Your task to perform on an android device: Go to Android settings Image 0: 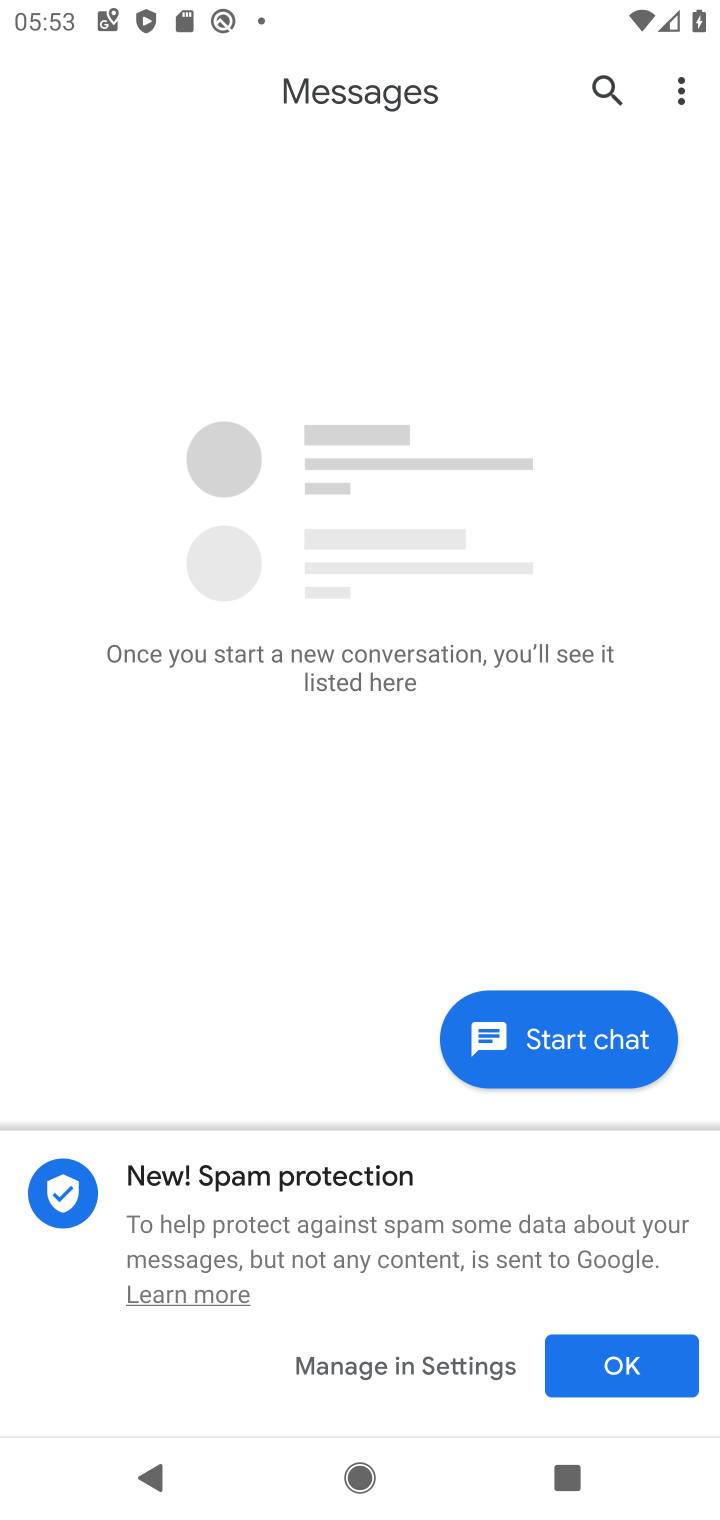
Step 0: press home button
Your task to perform on an android device: Go to Android settings Image 1: 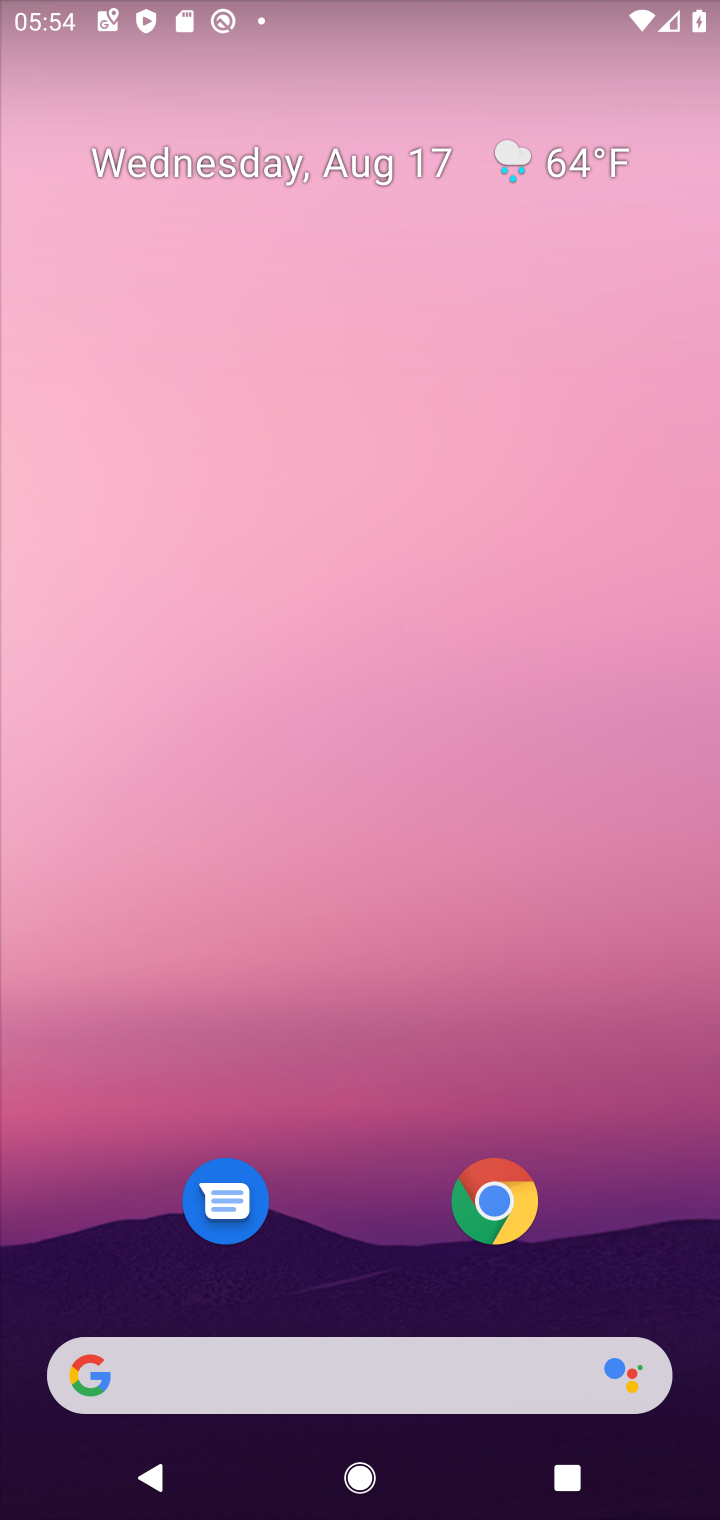
Step 1: click (400, 273)
Your task to perform on an android device: Go to Android settings Image 2: 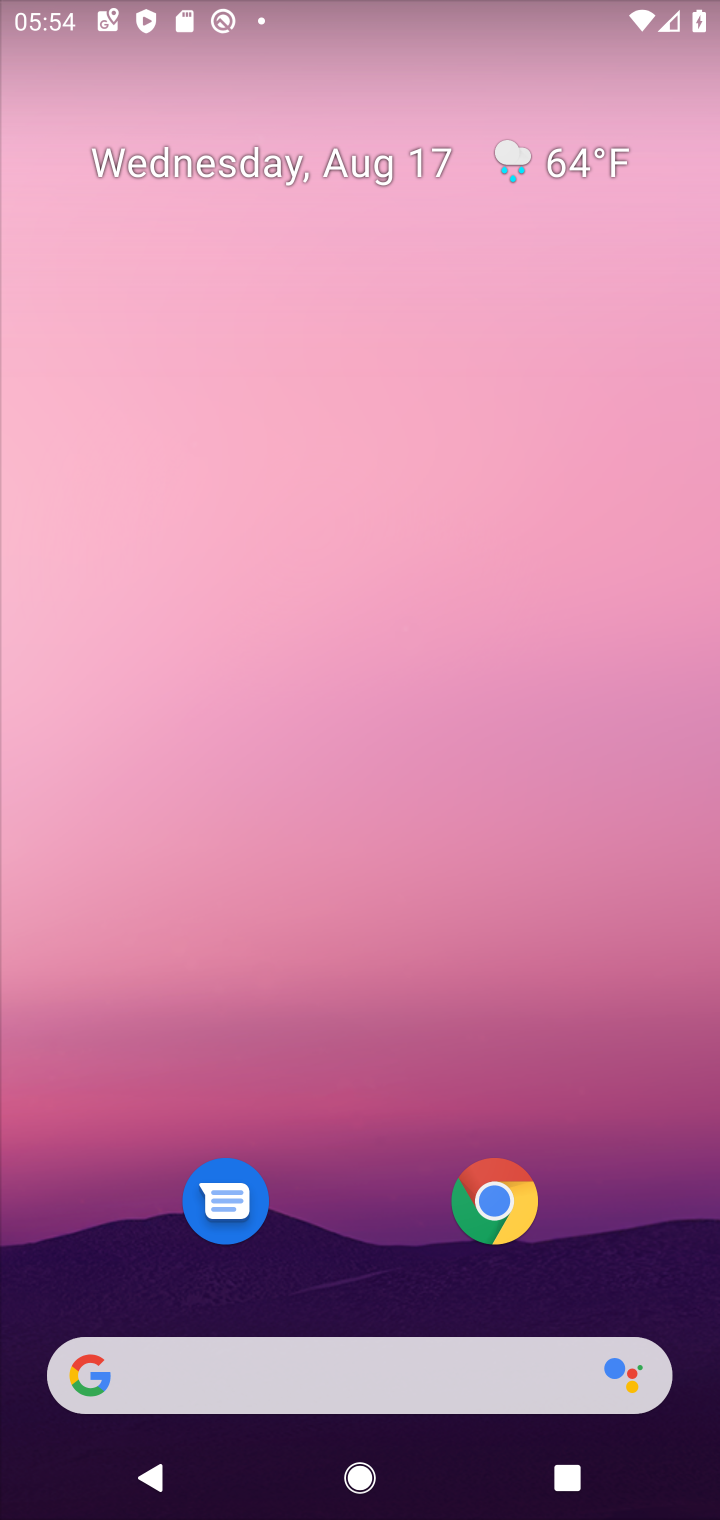
Step 2: drag from (339, 1279) to (345, 206)
Your task to perform on an android device: Go to Android settings Image 3: 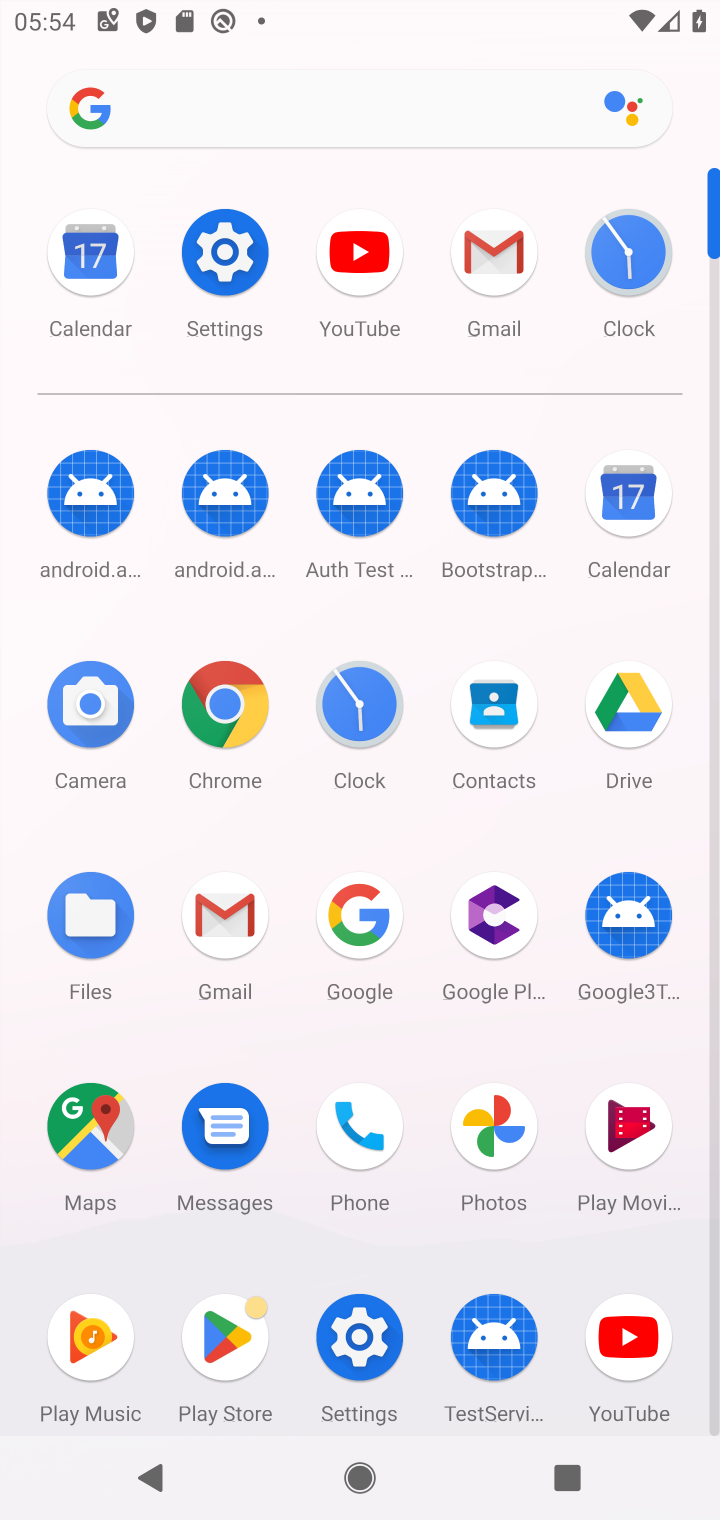
Step 3: click (214, 295)
Your task to perform on an android device: Go to Android settings Image 4: 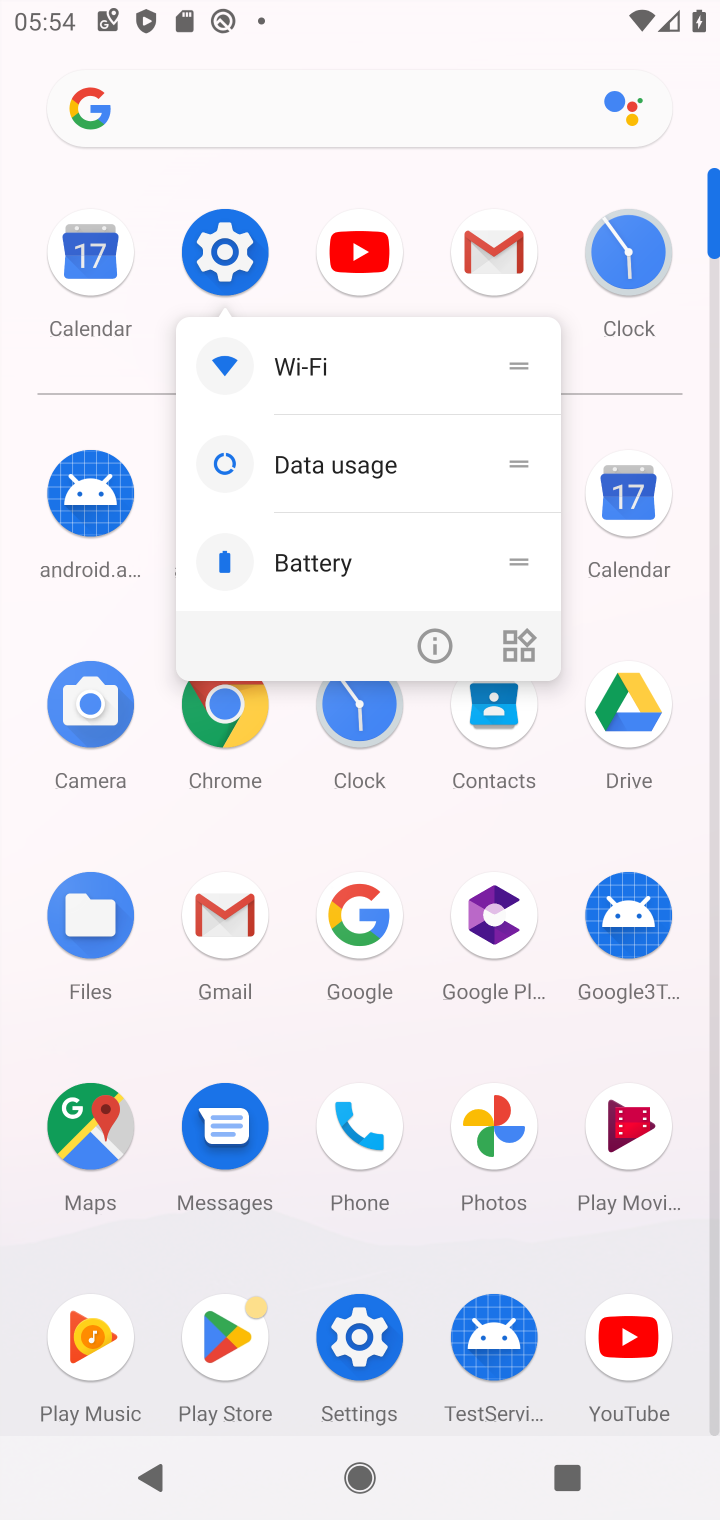
Step 4: click (222, 245)
Your task to perform on an android device: Go to Android settings Image 5: 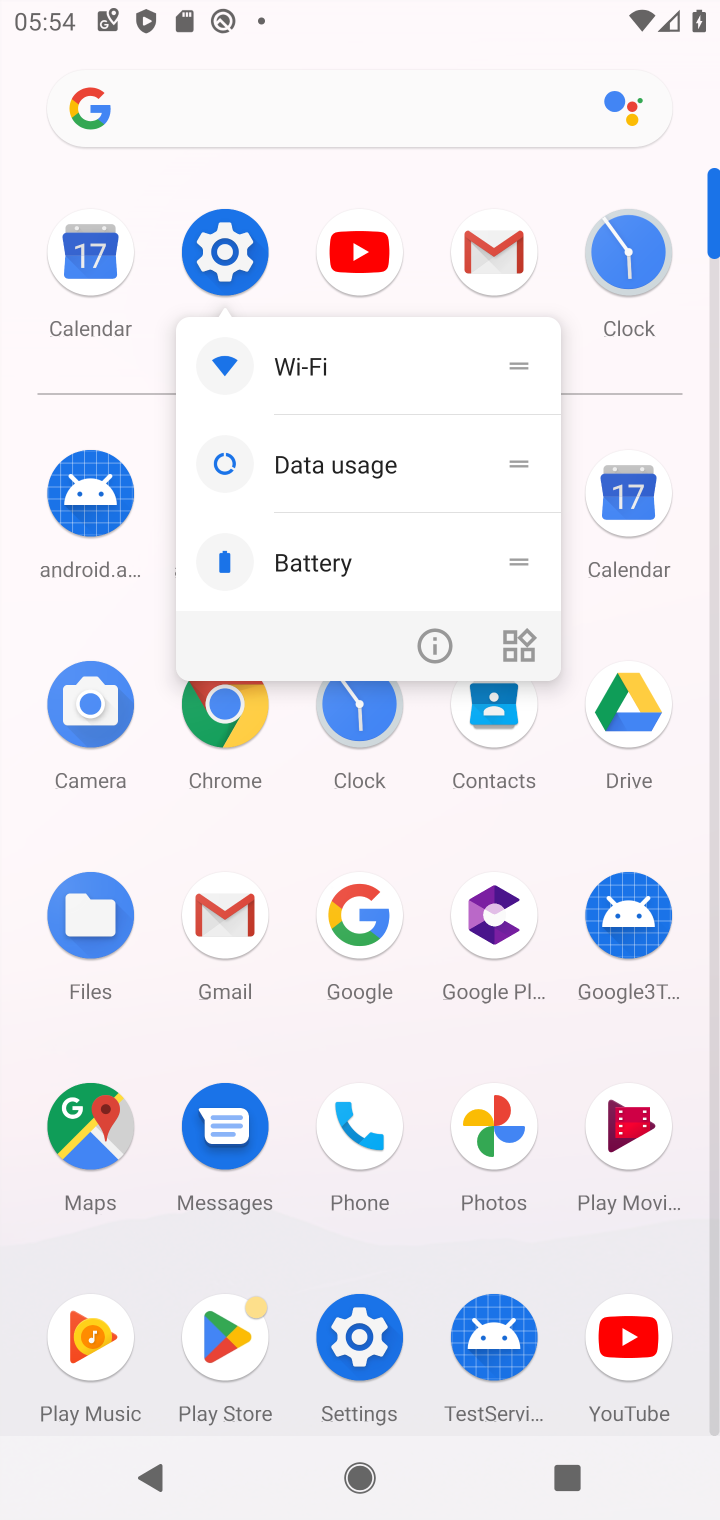
Step 5: click (222, 245)
Your task to perform on an android device: Go to Android settings Image 6: 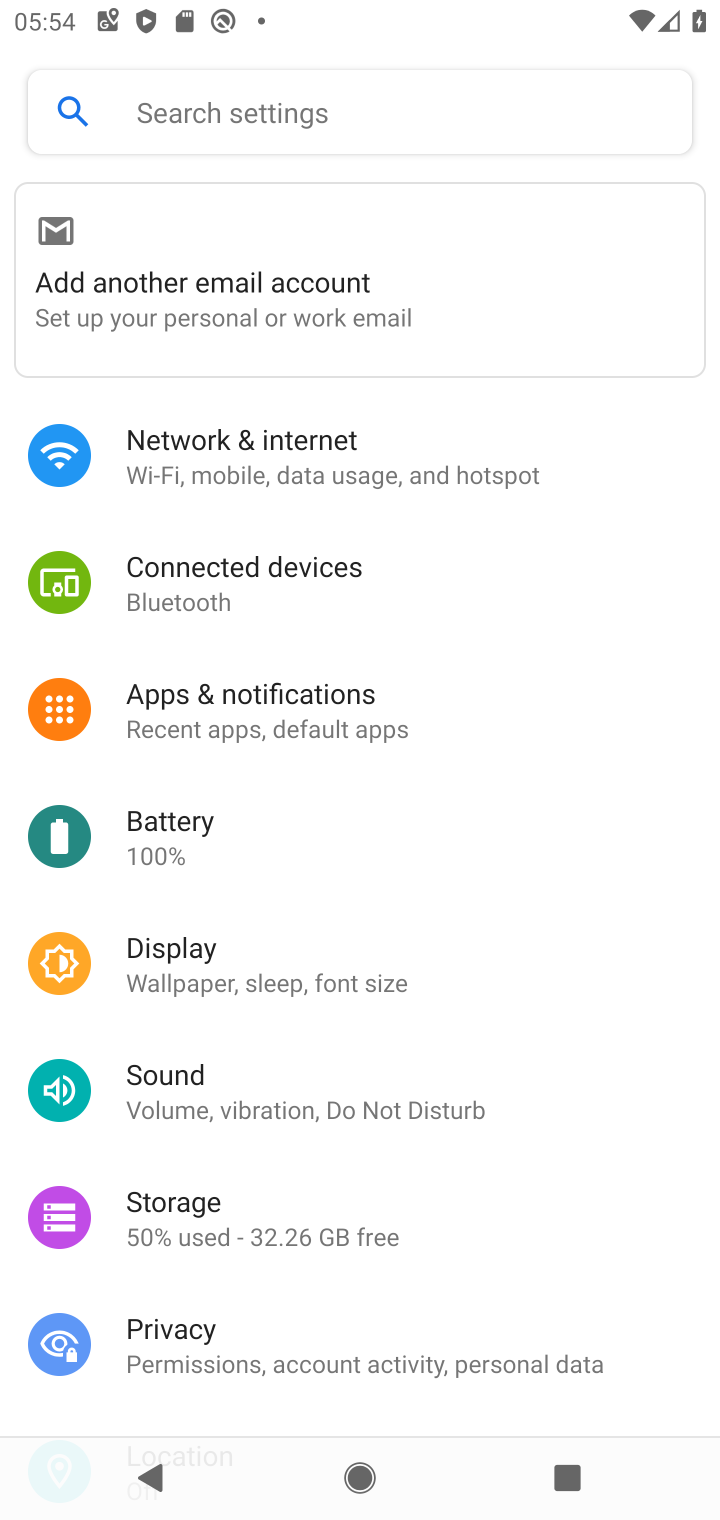
Step 6: task complete